Your task to perform on an android device: Open Google Image 0: 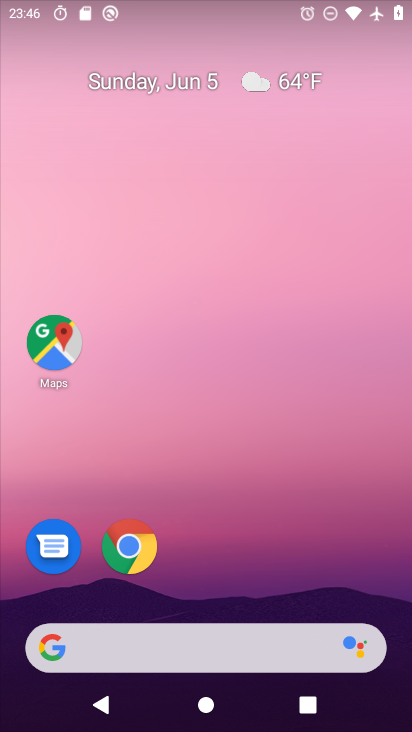
Step 0: drag from (226, 599) to (191, 244)
Your task to perform on an android device: Open Google Image 1: 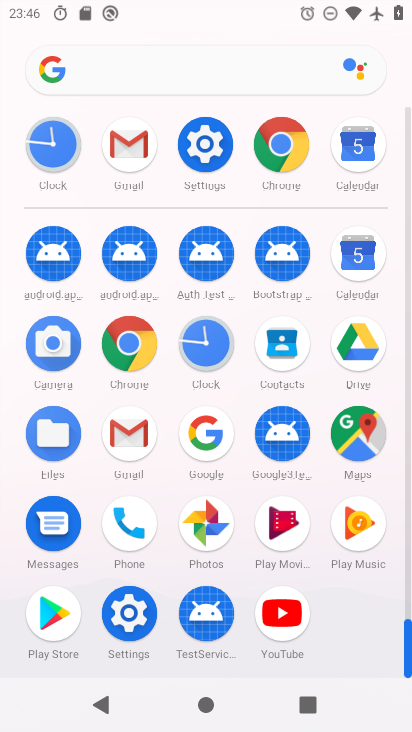
Step 1: click (199, 422)
Your task to perform on an android device: Open Google Image 2: 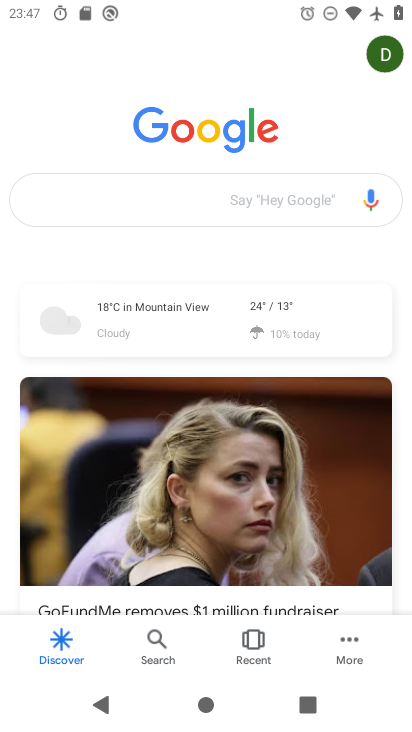
Step 2: task complete